Your task to perform on an android device: toggle javascript in the chrome app Image 0: 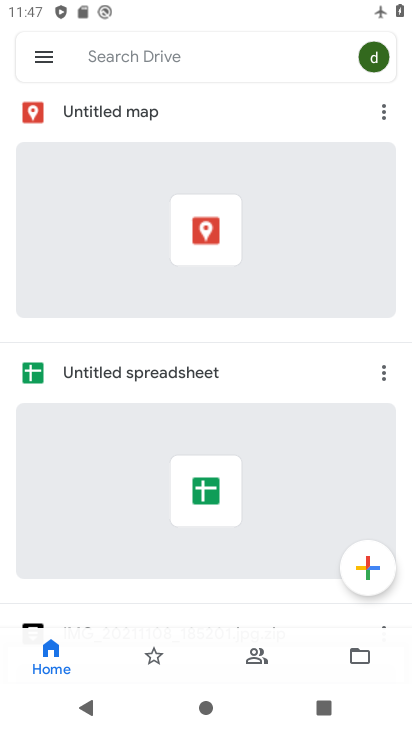
Step 0: press home button
Your task to perform on an android device: toggle javascript in the chrome app Image 1: 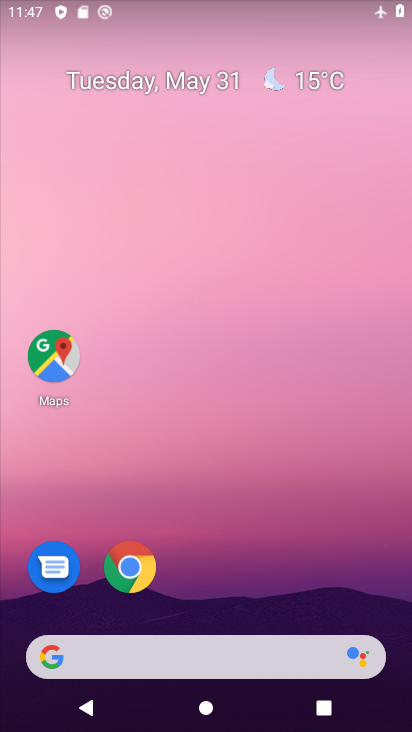
Step 1: click (150, 555)
Your task to perform on an android device: toggle javascript in the chrome app Image 2: 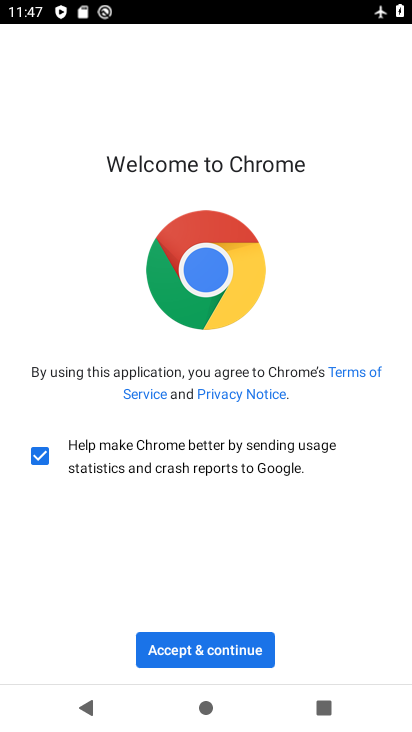
Step 2: click (204, 644)
Your task to perform on an android device: toggle javascript in the chrome app Image 3: 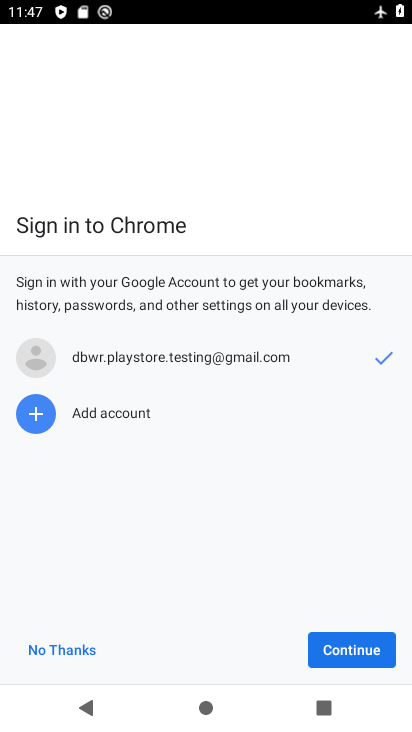
Step 3: click (313, 653)
Your task to perform on an android device: toggle javascript in the chrome app Image 4: 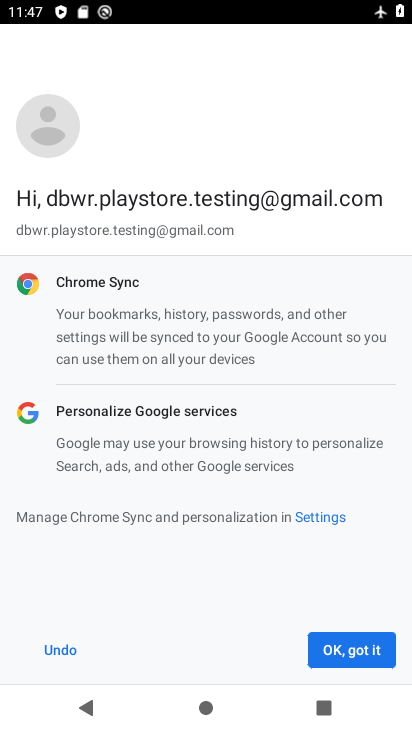
Step 4: click (313, 653)
Your task to perform on an android device: toggle javascript in the chrome app Image 5: 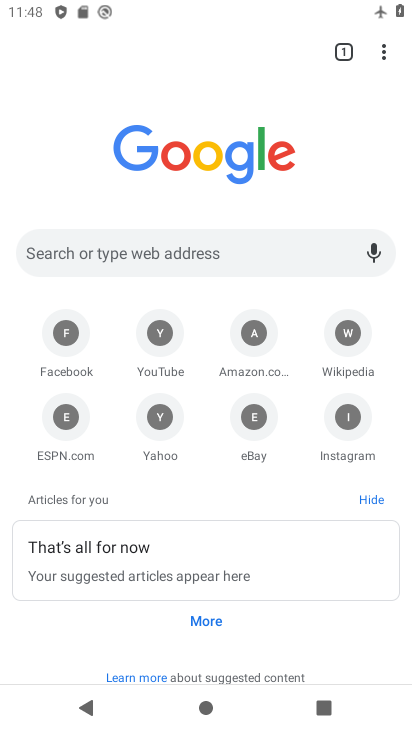
Step 5: click (387, 57)
Your task to perform on an android device: toggle javascript in the chrome app Image 6: 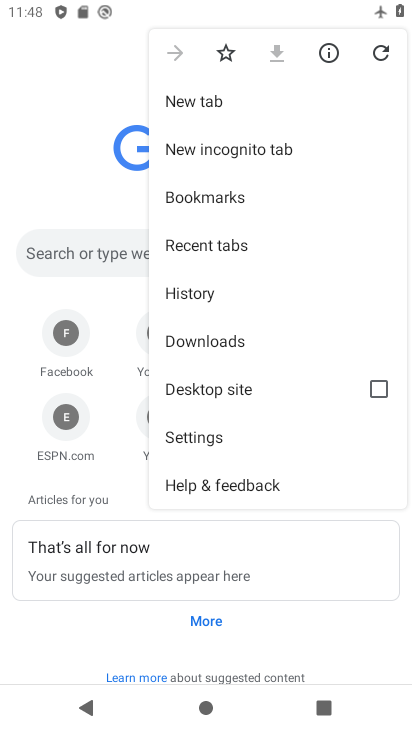
Step 6: click (230, 433)
Your task to perform on an android device: toggle javascript in the chrome app Image 7: 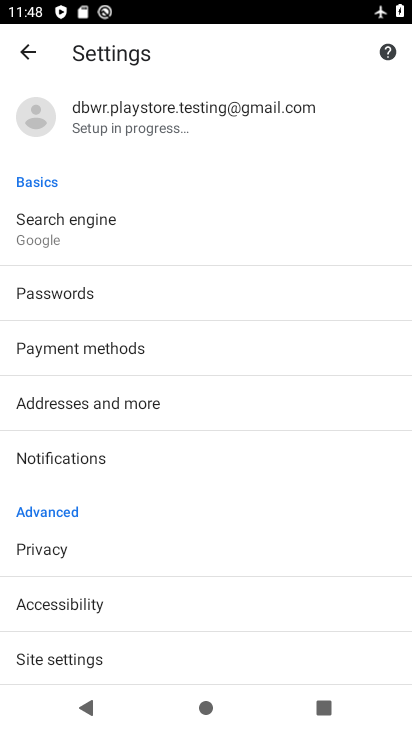
Step 7: click (137, 664)
Your task to perform on an android device: toggle javascript in the chrome app Image 8: 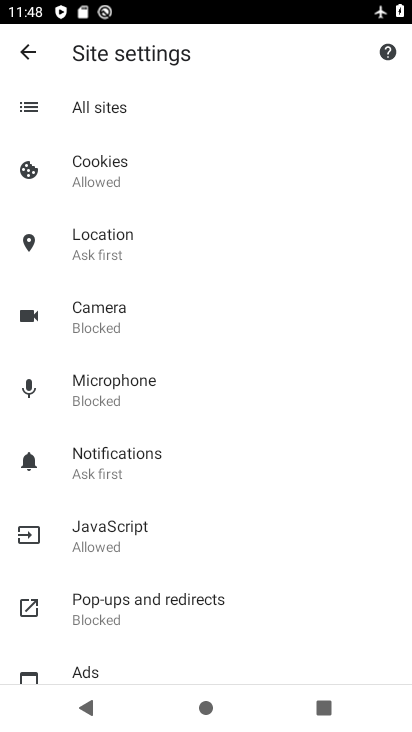
Step 8: click (142, 546)
Your task to perform on an android device: toggle javascript in the chrome app Image 9: 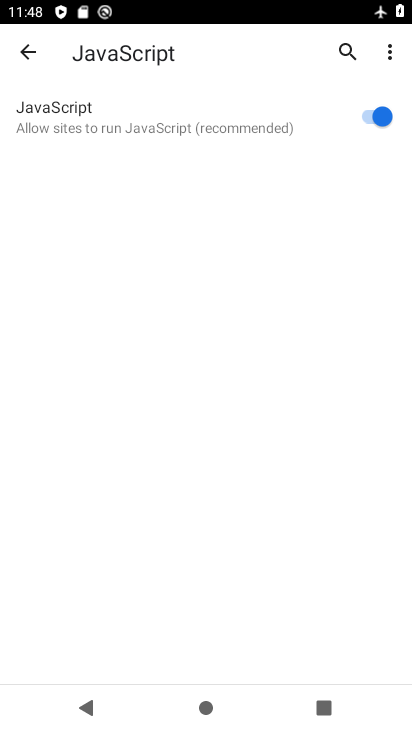
Step 9: click (376, 110)
Your task to perform on an android device: toggle javascript in the chrome app Image 10: 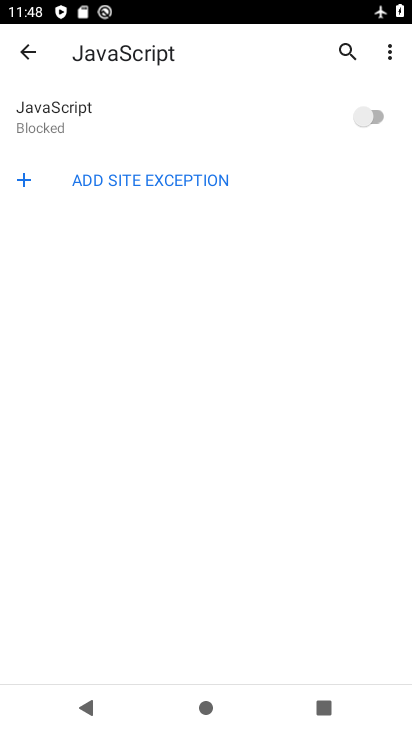
Step 10: task complete